Your task to perform on an android device: Turn on the flashlight Image 0: 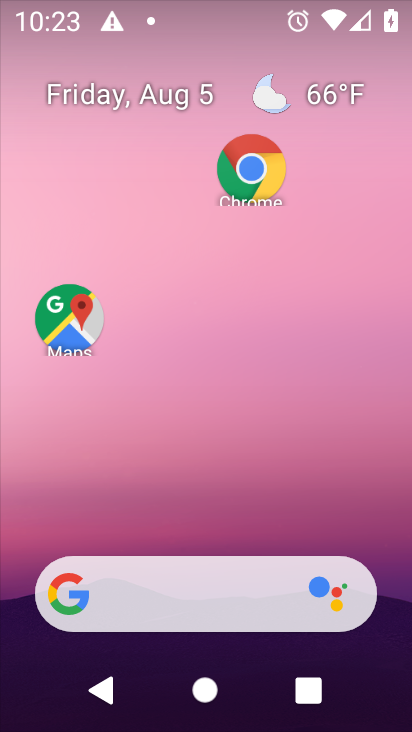
Step 0: drag from (205, 506) to (205, 75)
Your task to perform on an android device: Turn on the flashlight Image 1: 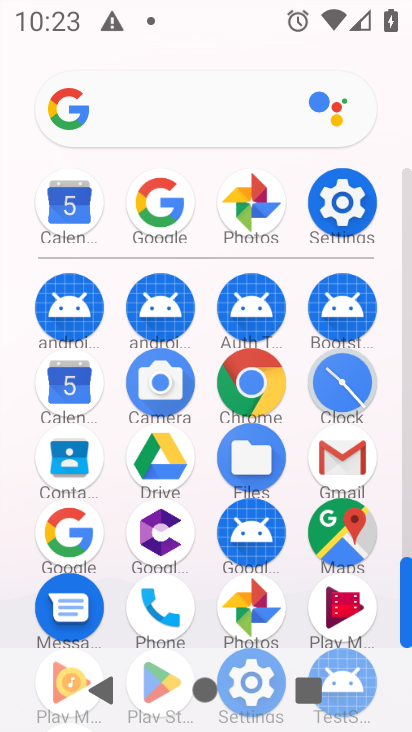
Step 1: click (336, 208)
Your task to perform on an android device: Turn on the flashlight Image 2: 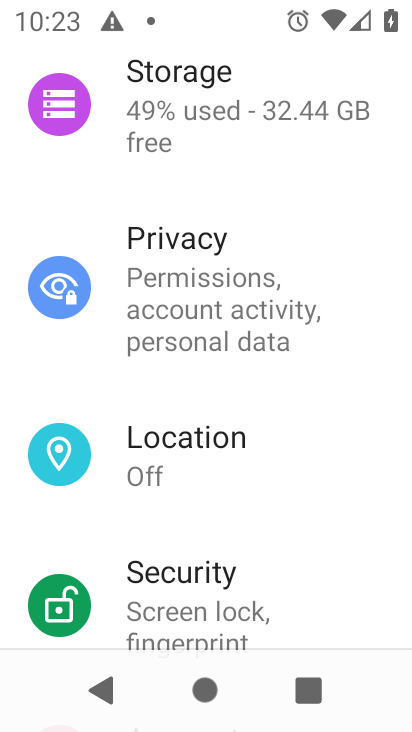
Step 2: task complete